Your task to perform on an android device: toggle pop-ups in chrome Image 0: 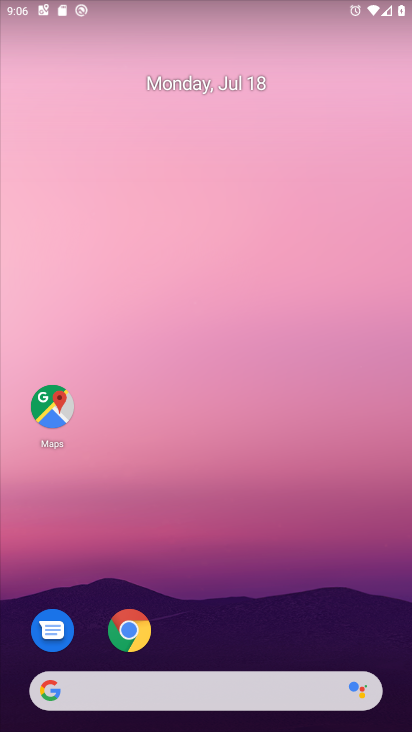
Step 0: click (135, 637)
Your task to perform on an android device: toggle pop-ups in chrome Image 1: 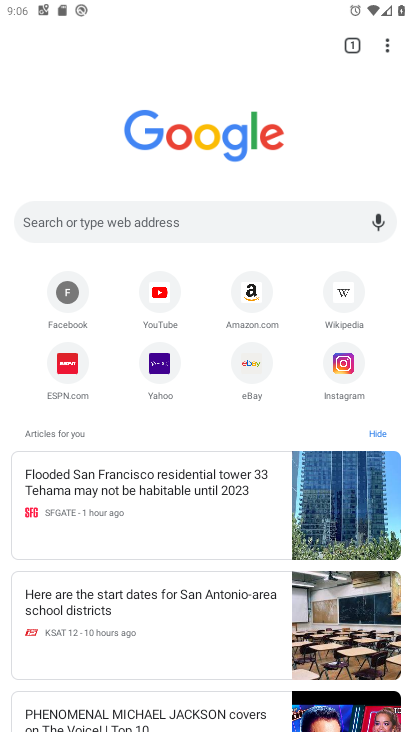
Step 1: click (388, 44)
Your task to perform on an android device: toggle pop-ups in chrome Image 2: 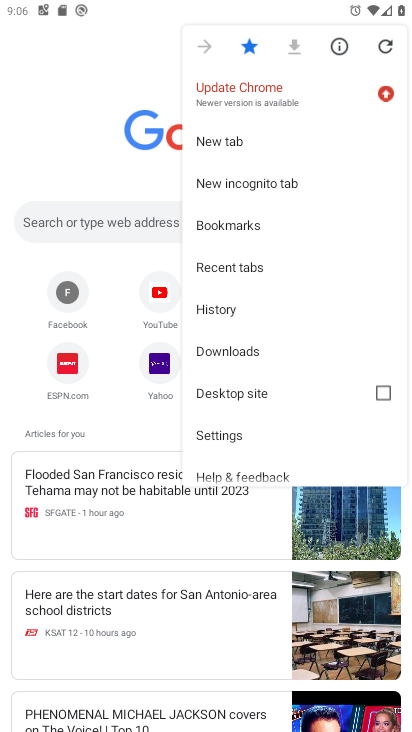
Step 2: click (244, 441)
Your task to perform on an android device: toggle pop-ups in chrome Image 3: 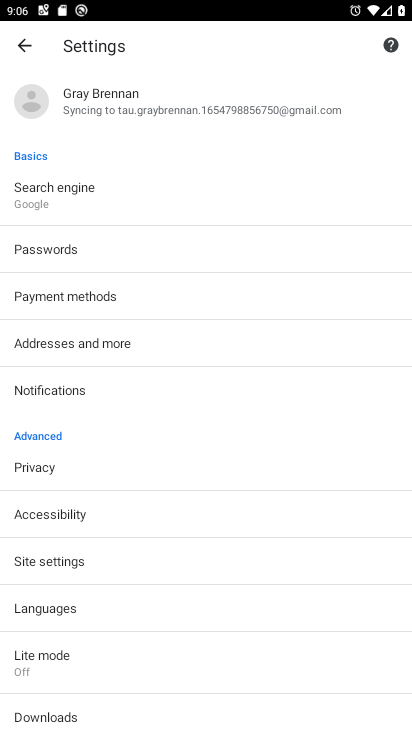
Step 3: click (51, 562)
Your task to perform on an android device: toggle pop-ups in chrome Image 4: 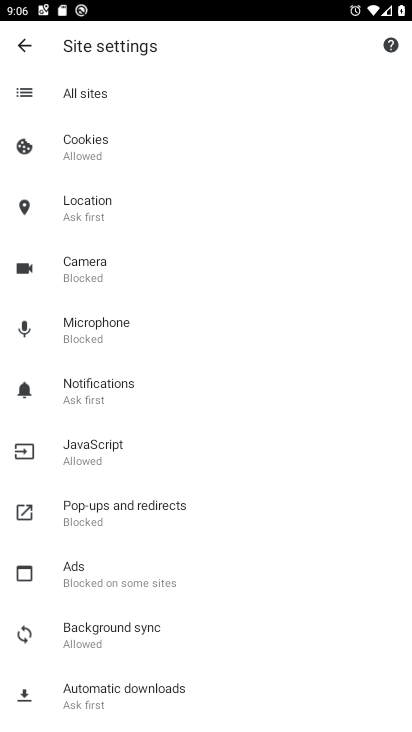
Step 4: click (132, 509)
Your task to perform on an android device: toggle pop-ups in chrome Image 5: 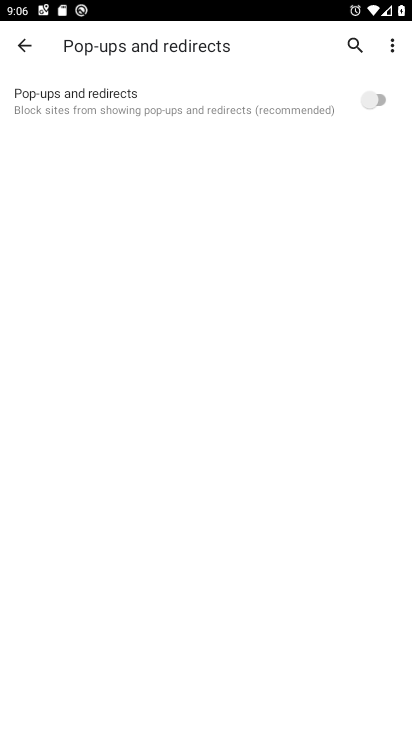
Step 5: click (378, 94)
Your task to perform on an android device: toggle pop-ups in chrome Image 6: 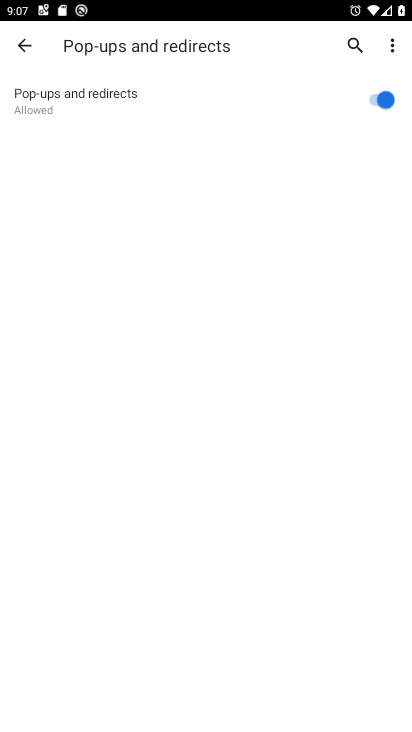
Step 6: task complete